Your task to perform on an android device: turn pop-ups on in chrome Image 0: 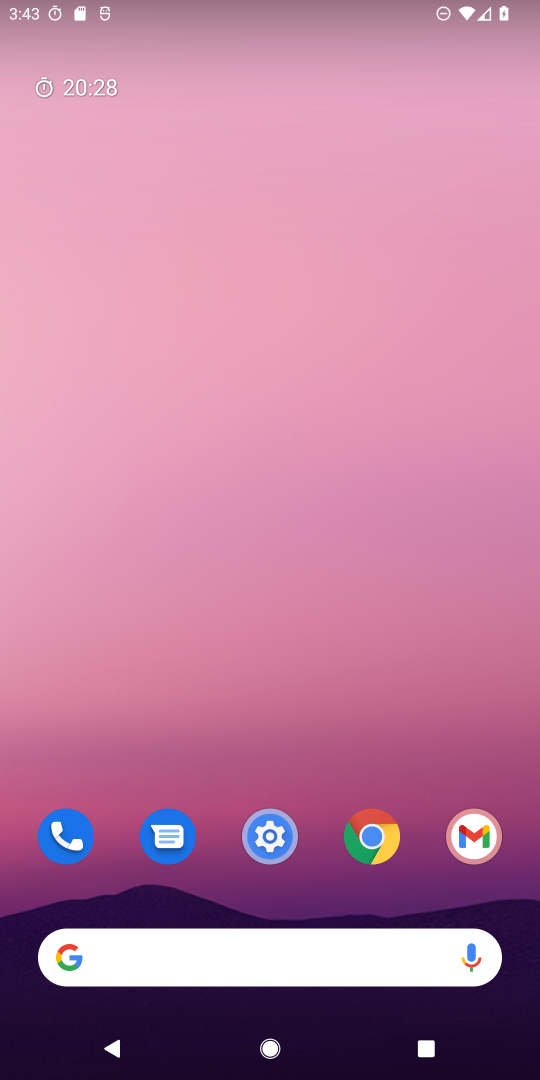
Step 0: click (375, 842)
Your task to perform on an android device: turn pop-ups on in chrome Image 1: 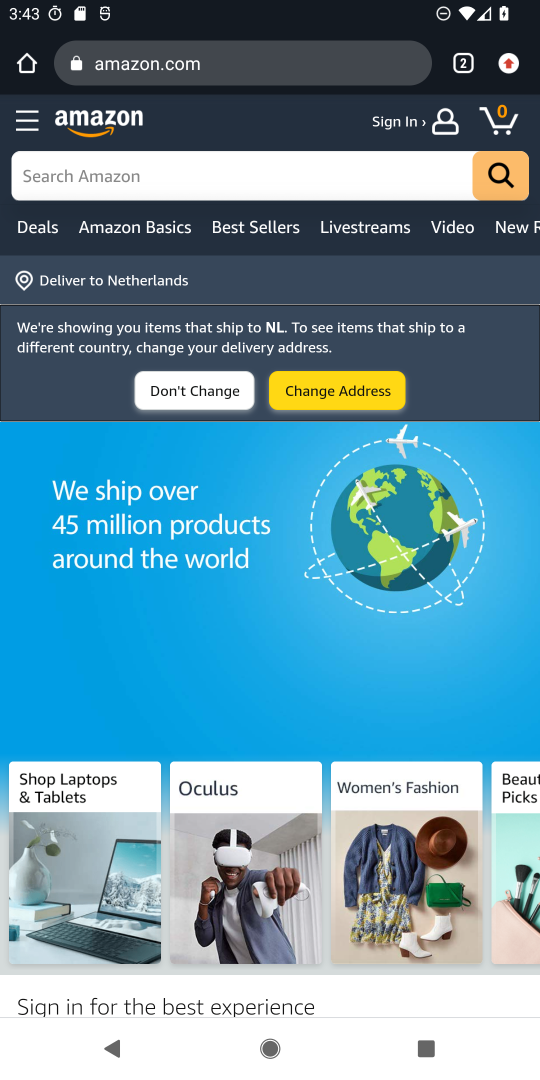
Step 1: click (508, 59)
Your task to perform on an android device: turn pop-ups on in chrome Image 2: 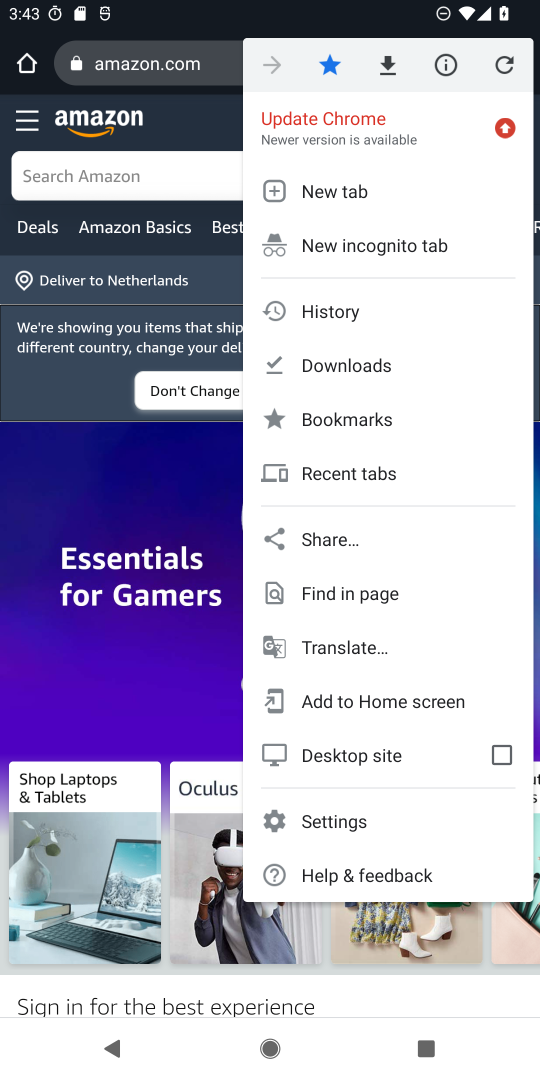
Step 2: click (324, 827)
Your task to perform on an android device: turn pop-ups on in chrome Image 3: 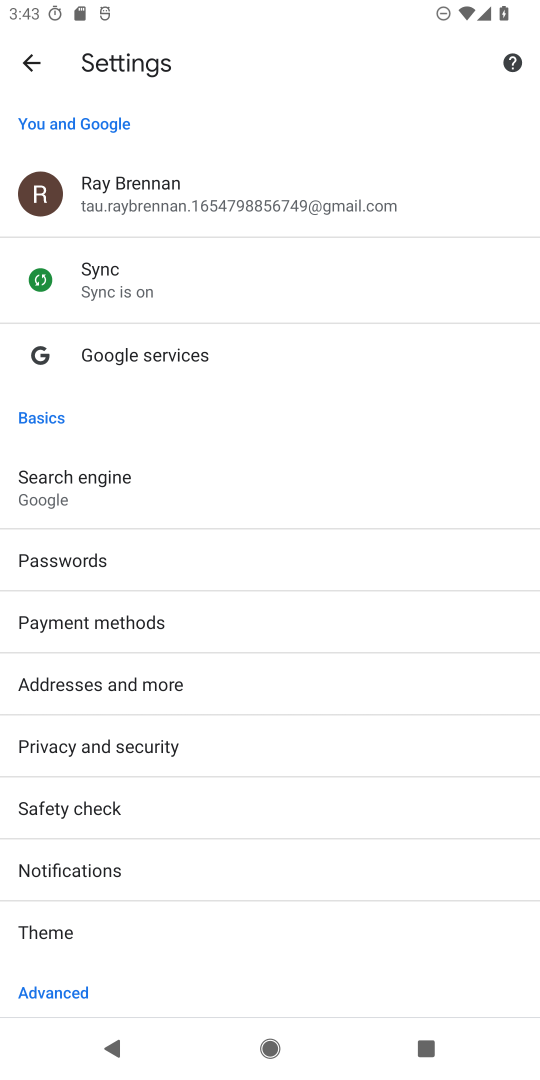
Step 3: drag from (116, 831) to (164, 563)
Your task to perform on an android device: turn pop-ups on in chrome Image 4: 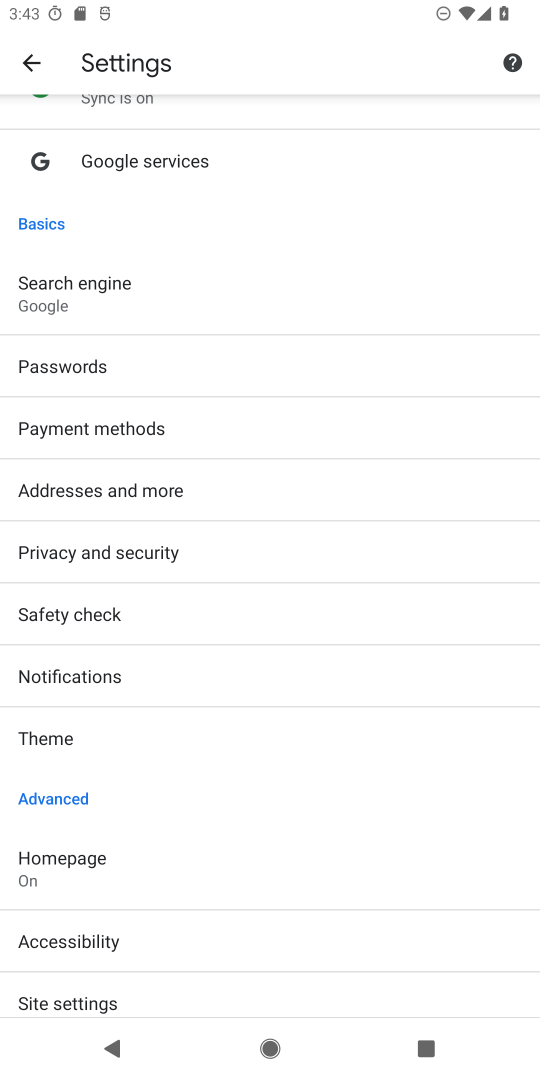
Step 4: drag from (108, 896) to (140, 644)
Your task to perform on an android device: turn pop-ups on in chrome Image 5: 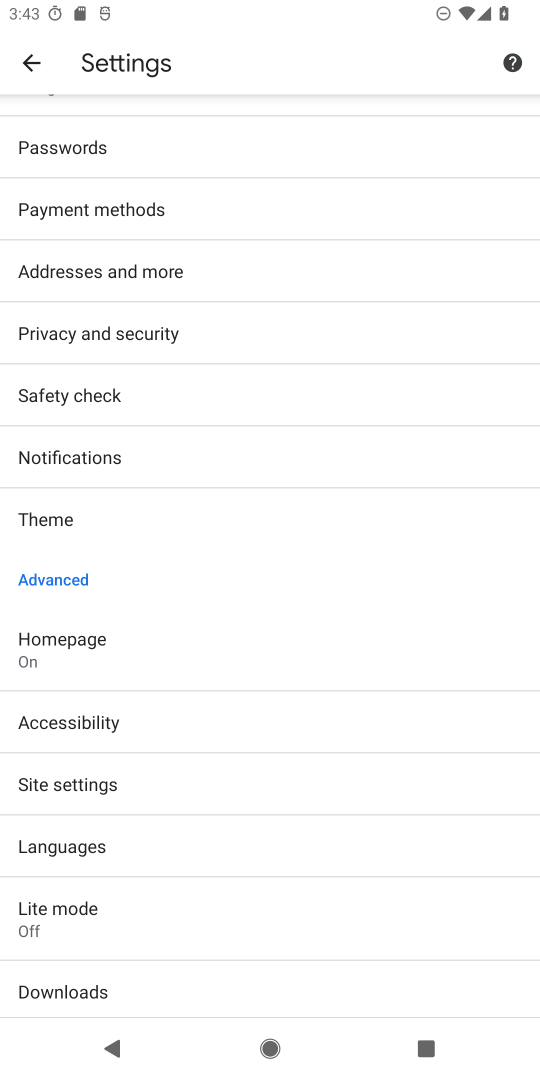
Step 5: click (108, 782)
Your task to perform on an android device: turn pop-ups on in chrome Image 6: 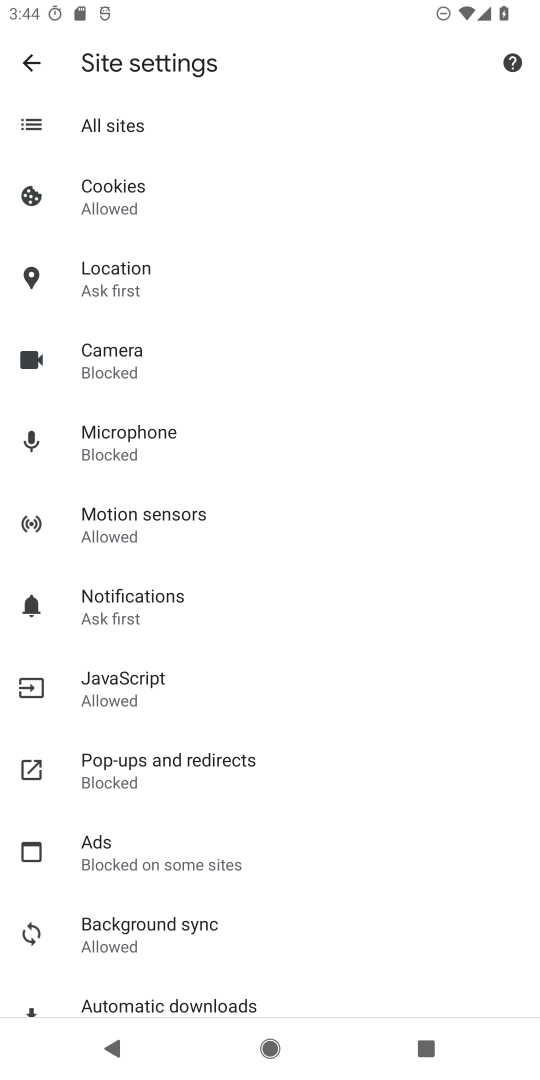
Step 6: click (143, 774)
Your task to perform on an android device: turn pop-ups on in chrome Image 7: 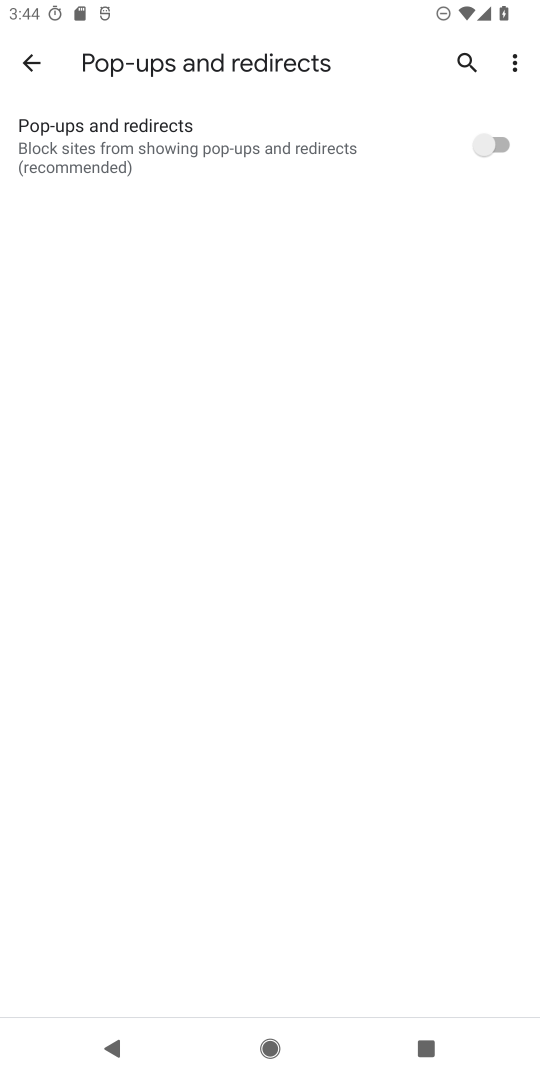
Step 7: click (501, 130)
Your task to perform on an android device: turn pop-ups on in chrome Image 8: 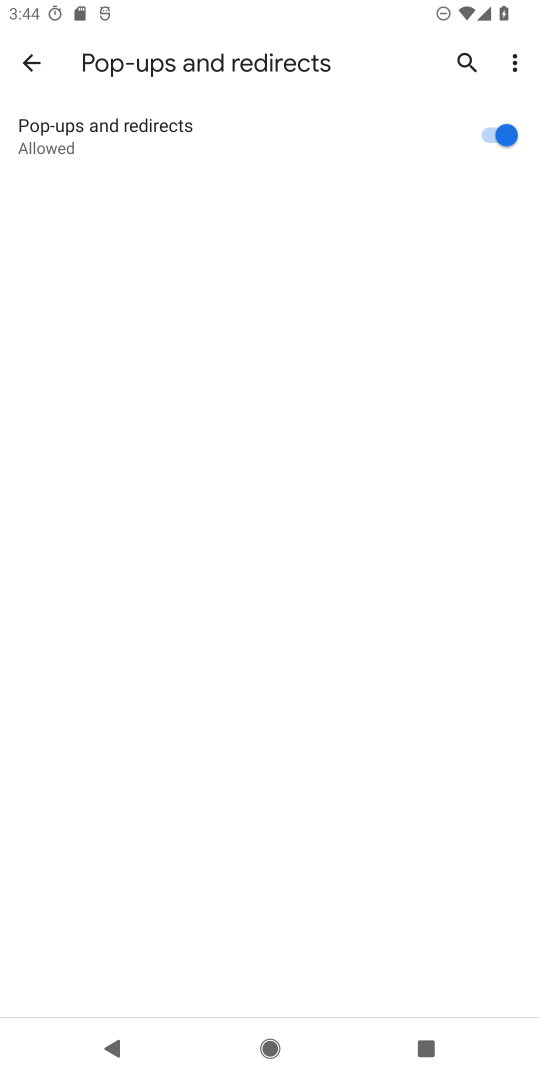
Step 8: task complete